Your task to perform on an android device: Open Youtube and go to the subscriptions tab Image 0: 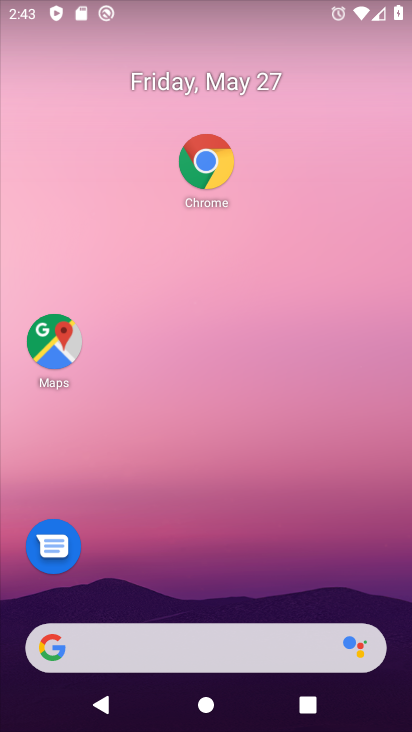
Step 0: drag from (181, 575) to (273, 202)
Your task to perform on an android device: Open Youtube and go to the subscriptions tab Image 1: 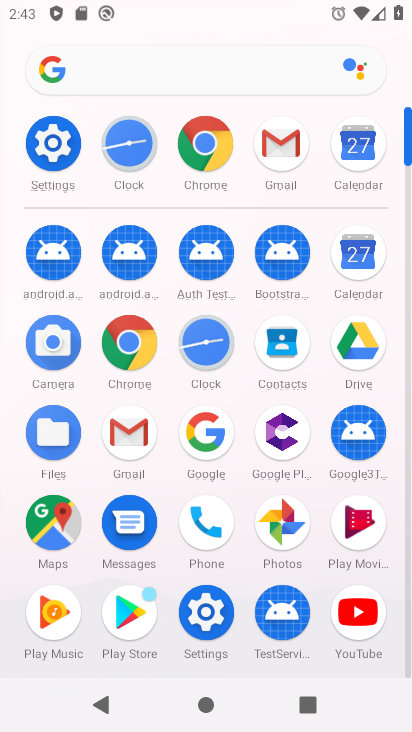
Step 1: click (378, 617)
Your task to perform on an android device: Open Youtube and go to the subscriptions tab Image 2: 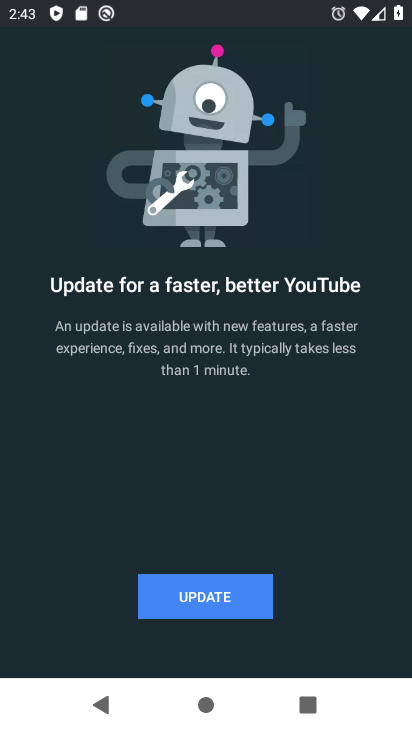
Step 2: click (198, 605)
Your task to perform on an android device: Open Youtube and go to the subscriptions tab Image 3: 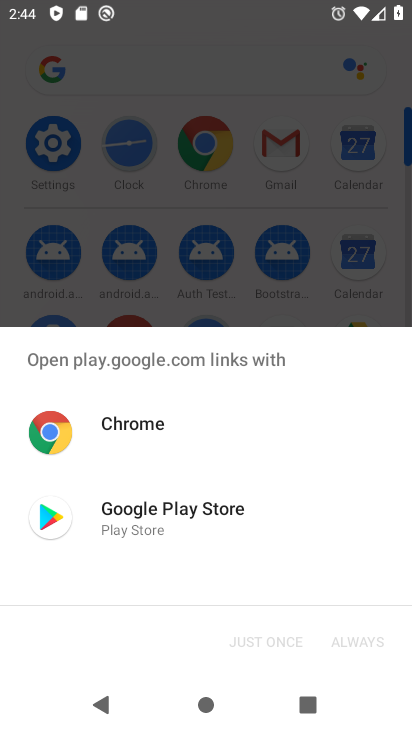
Step 3: click (142, 521)
Your task to perform on an android device: Open Youtube and go to the subscriptions tab Image 4: 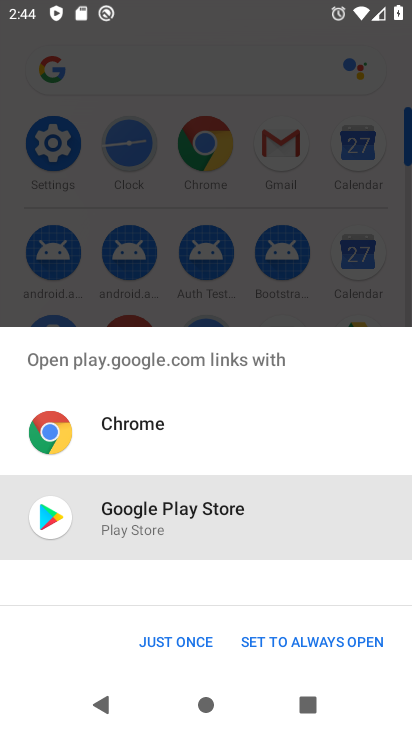
Step 4: click (178, 642)
Your task to perform on an android device: Open Youtube and go to the subscriptions tab Image 5: 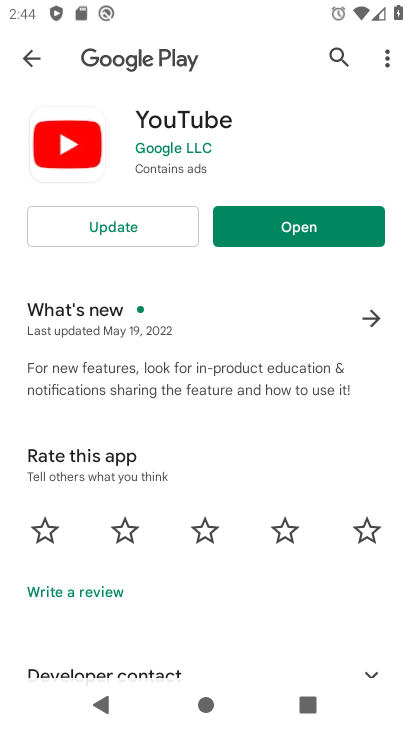
Step 5: click (123, 227)
Your task to perform on an android device: Open Youtube and go to the subscriptions tab Image 6: 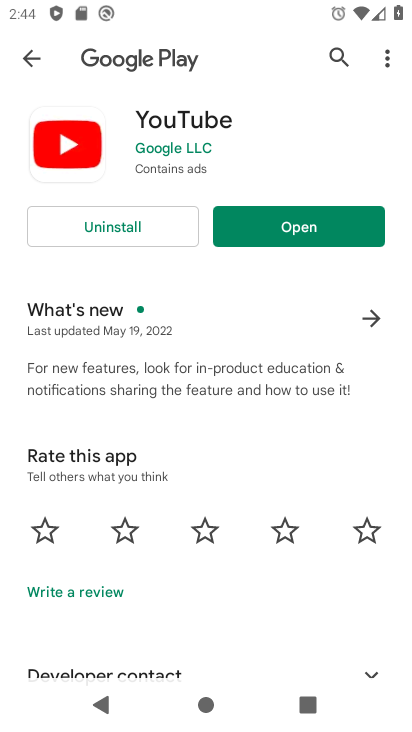
Step 6: click (339, 228)
Your task to perform on an android device: Open Youtube and go to the subscriptions tab Image 7: 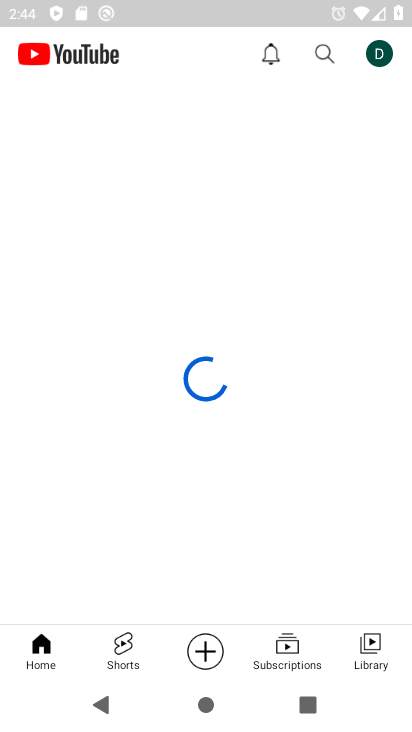
Step 7: click (256, 658)
Your task to perform on an android device: Open Youtube and go to the subscriptions tab Image 8: 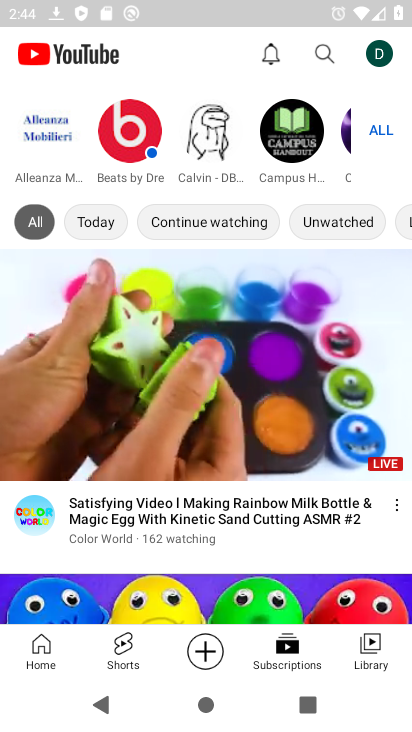
Step 8: task complete